Your task to perform on an android device: create a new album in the google photos Image 0: 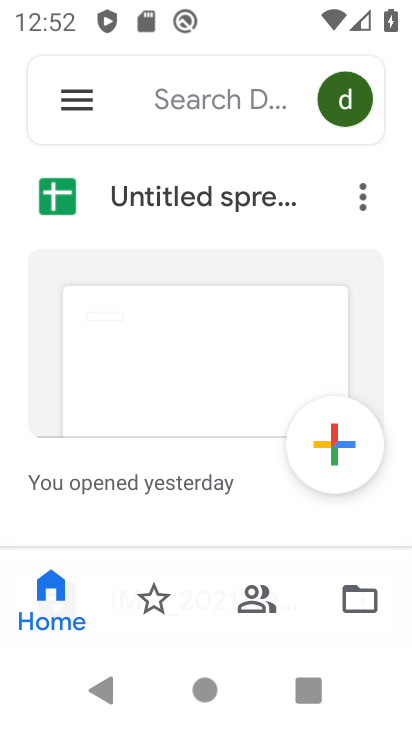
Step 0: press home button
Your task to perform on an android device: create a new album in the google photos Image 1: 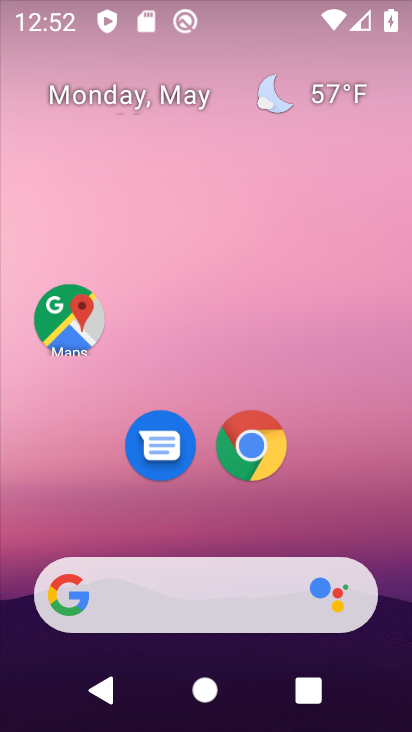
Step 1: drag from (405, 628) to (269, 112)
Your task to perform on an android device: create a new album in the google photos Image 2: 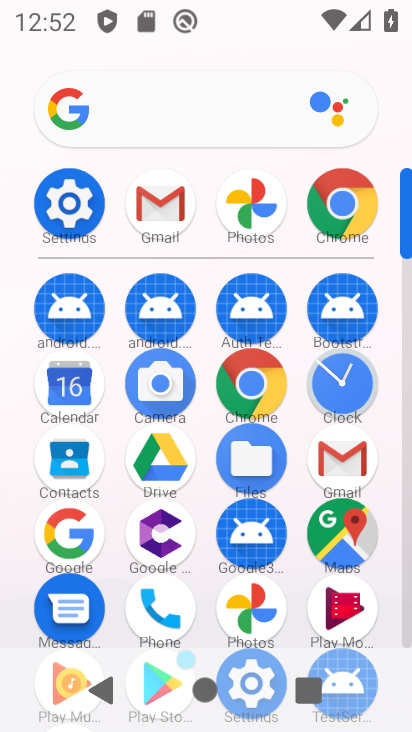
Step 2: click (246, 609)
Your task to perform on an android device: create a new album in the google photos Image 3: 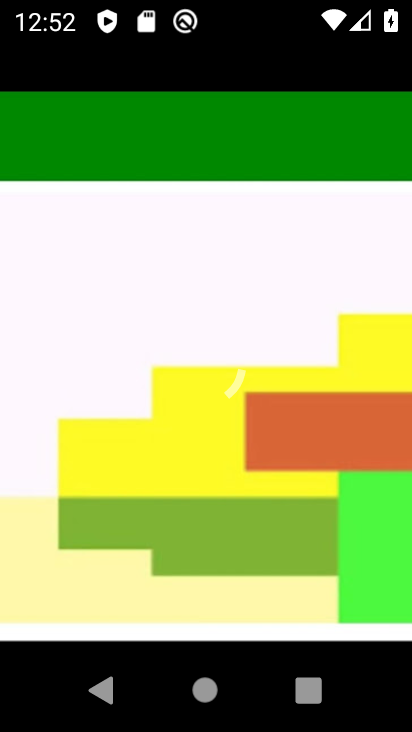
Step 3: press back button
Your task to perform on an android device: create a new album in the google photos Image 4: 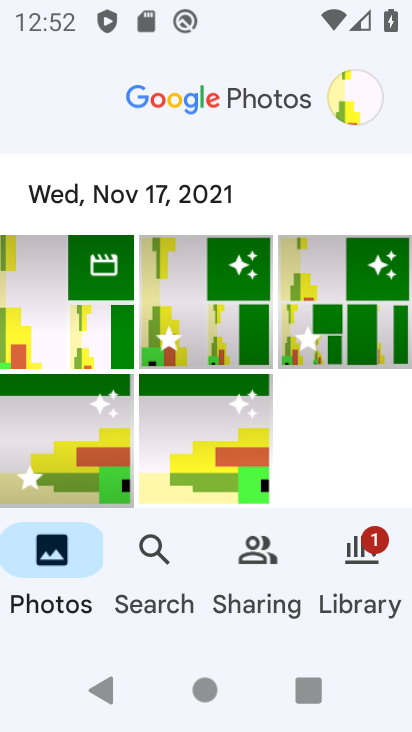
Step 4: click (172, 281)
Your task to perform on an android device: create a new album in the google photos Image 5: 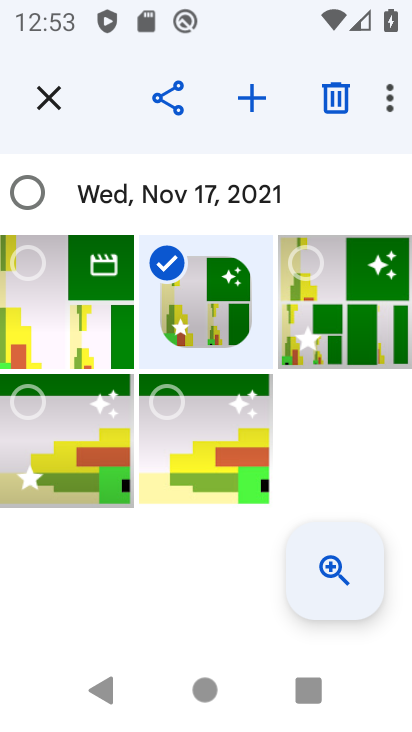
Step 5: click (240, 96)
Your task to perform on an android device: create a new album in the google photos Image 6: 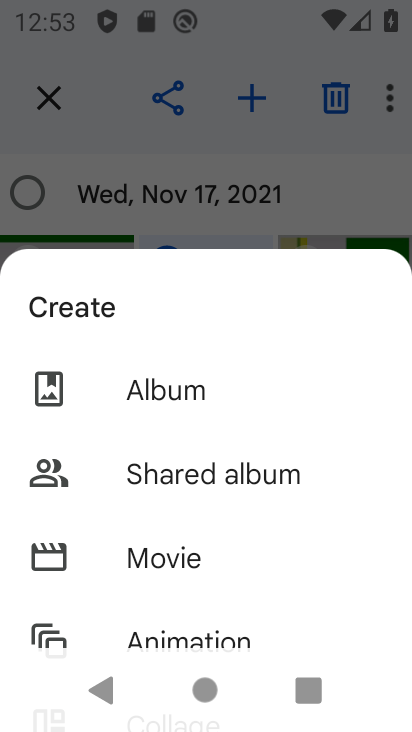
Step 6: click (213, 364)
Your task to perform on an android device: create a new album in the google photos Image 7: 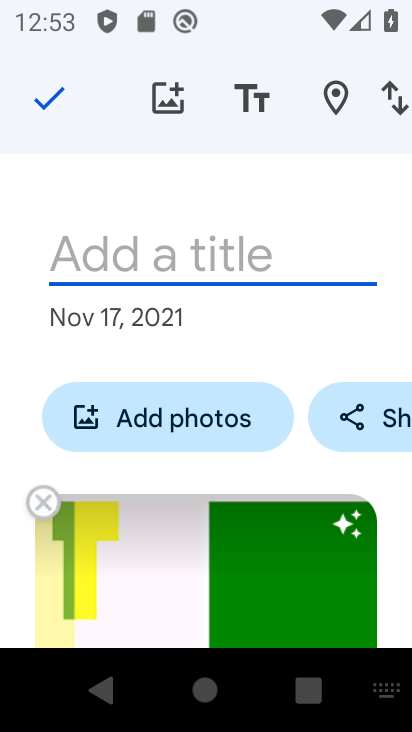
Step 7: type "KK"
Your task to perform on an android device: create a new album in the google photos Image 8: 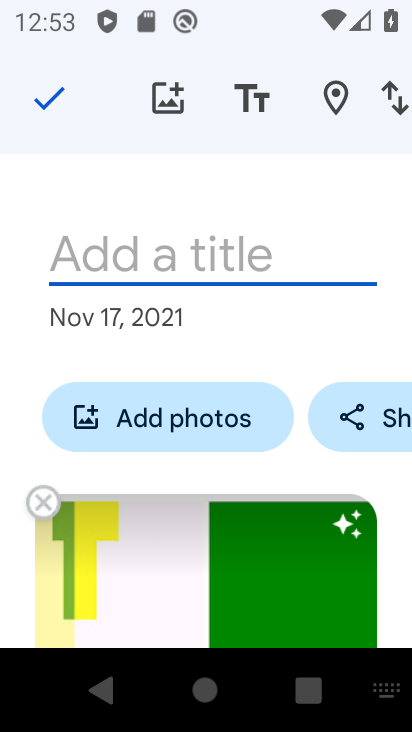
Step 8: click (23, 99)
Your task to perform on an android device: create a new album in the google photos Image 9: 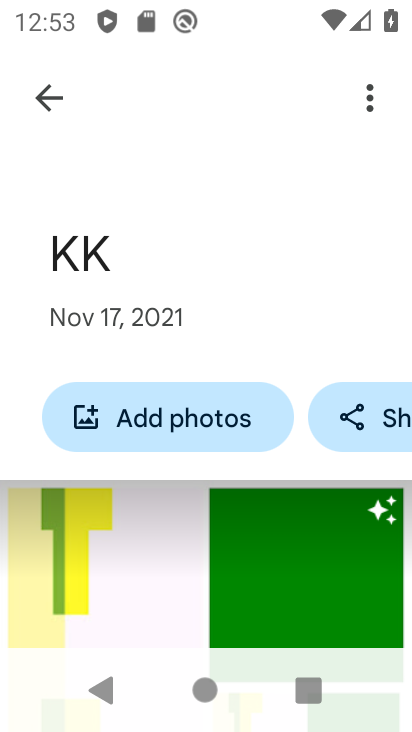
Step 9: task complete